Your task to perform on an android device: add a contact in the contacts app Image 0: 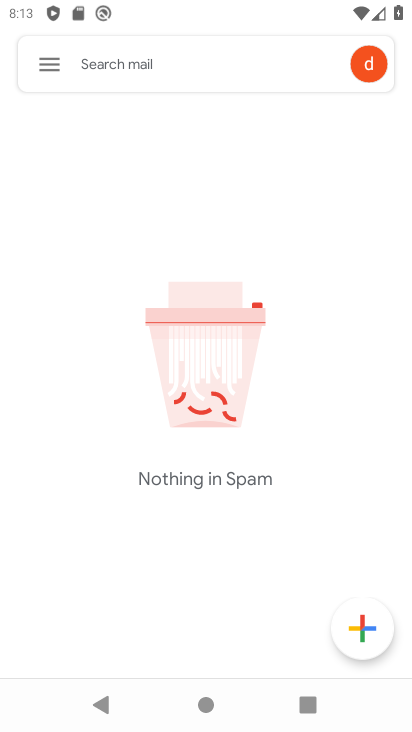
Step 0: press home button
Your task to perform on an android device: add a contact in the contacts app Image 1: 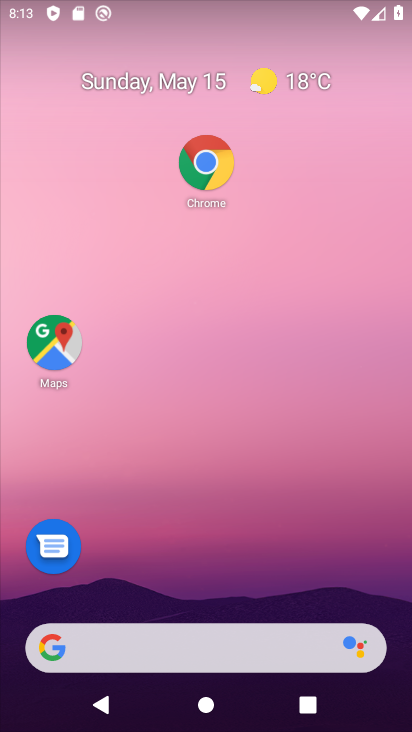
Step 1: drag from (203, 520) to (316, 153)
Your task to perform on an android device: add a contact in the contacts app Image 2: 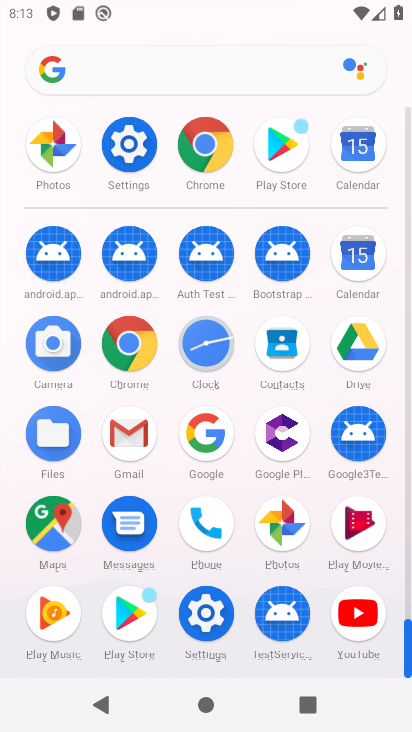
Step 2: click (210, 514)
Your task to perform on an android device: add a contact in the contacts app Image 3: 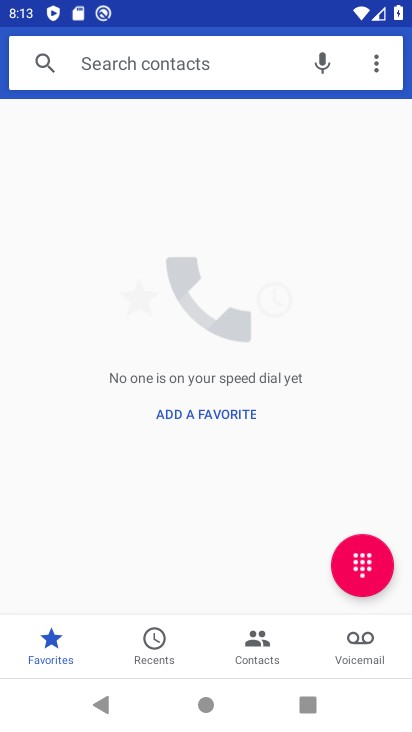
Step 3: click (189, 403)
Your task to perform on an android device: add a contact in the contacts app Image 4: 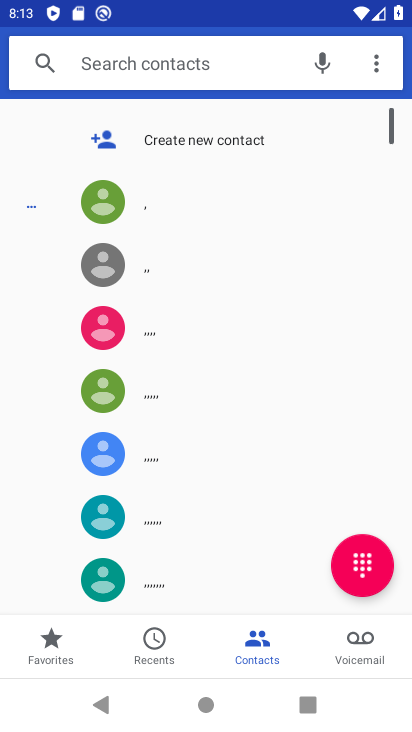
Step 4: click (174, 125)
Your task to perform on an android device: add a contact in the contacts app Image 5: 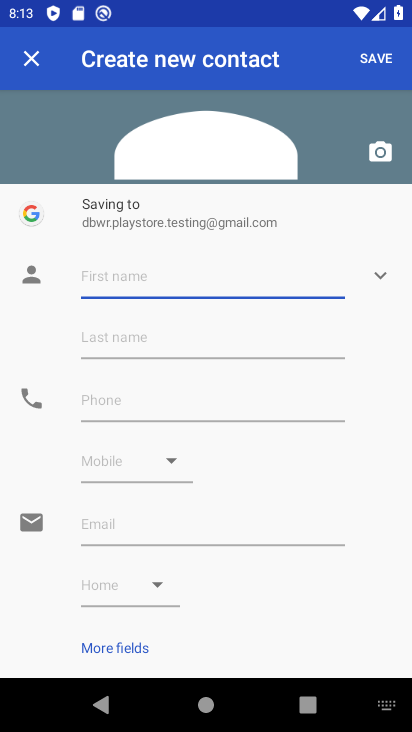
Step 5: click (203, 273)
Your task to perform on an android device: add a contact in the contacts app Image 6: 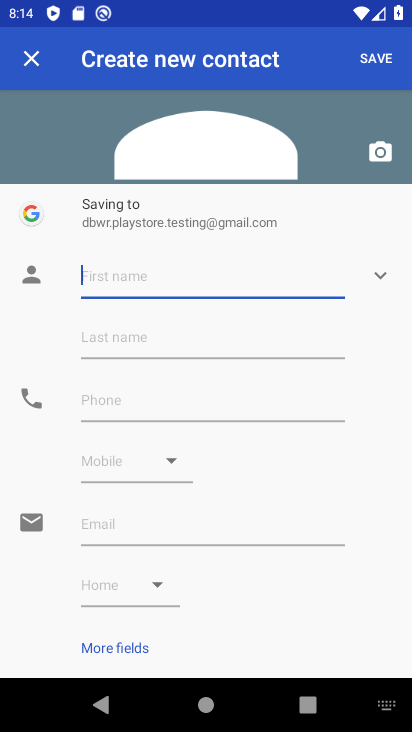
Step 6: type "gfgfgfgffgf"
Your task to perform on an android device: add a contact in the contacts app Image 7: 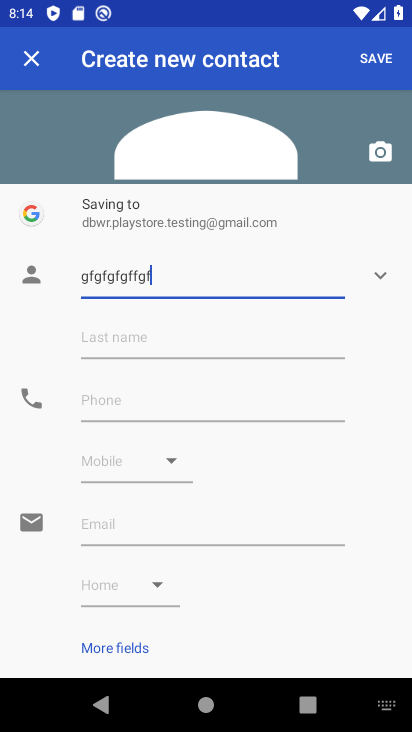
Step 7: click (141, 402)
Your task to perform on an android device: add a contact in the contacts app Image 8: 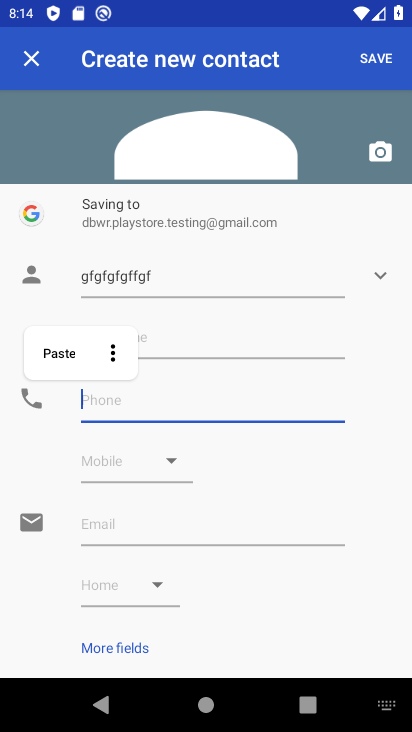
Step 8: type "6565565565656"
Your task to perform on an android device: add a contact in the contacts app Image 9: 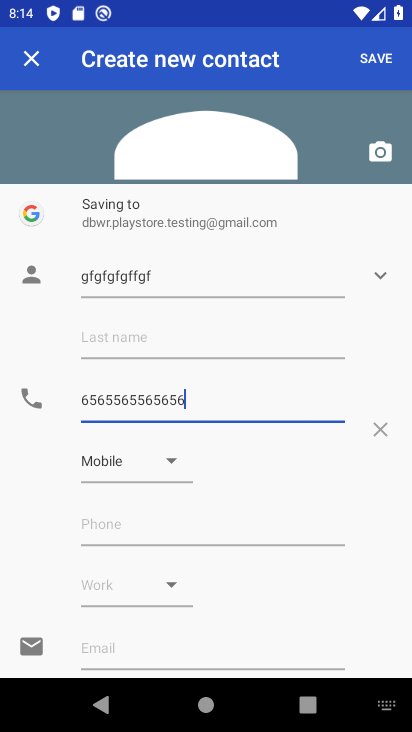
Step 9: click (371, 65)
Your task to perform on an android device: add a contact in the contacts app Image 10: 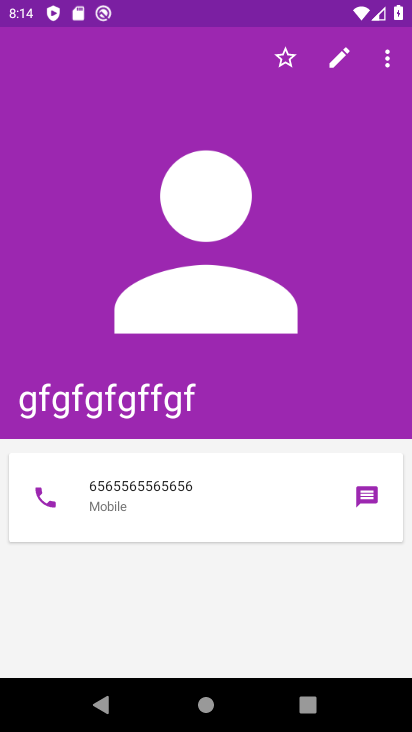
Step 10: task complete